Your task to perform on an android device: open app "Airtel Thanks" (install if not already installed) Image 0: 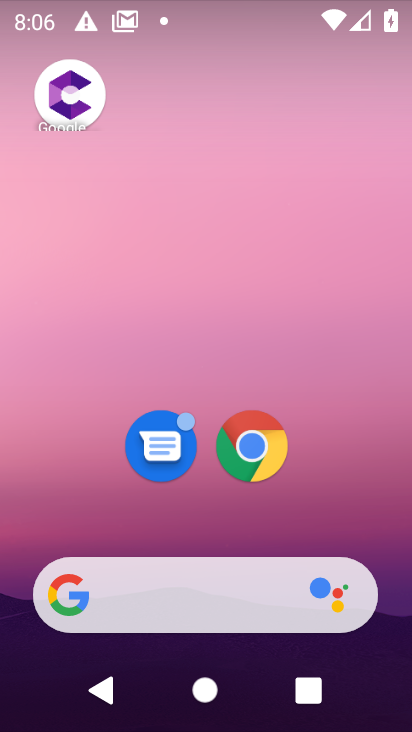
Step 0: drag from (241, 550) to (255, 147)
Your task to perform on an android device: open app "Airtel Thanks" (install if not already installed) Image 1: 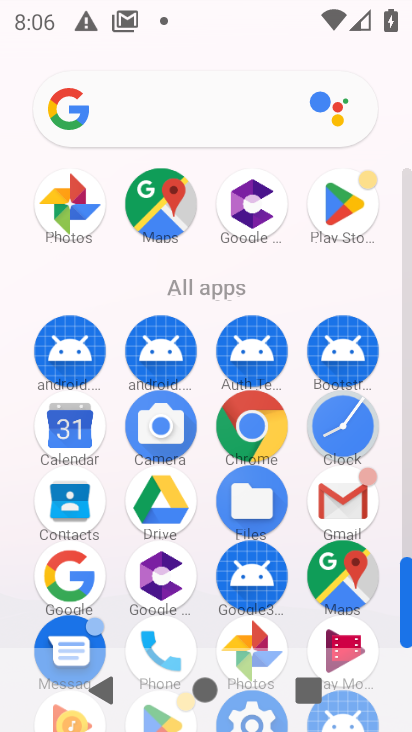
Step 1: drag from (297, 595) to (315, 205)
Your task to perform on an android device: open app "Airtel Thanks" (install if not already installed) Image 2: 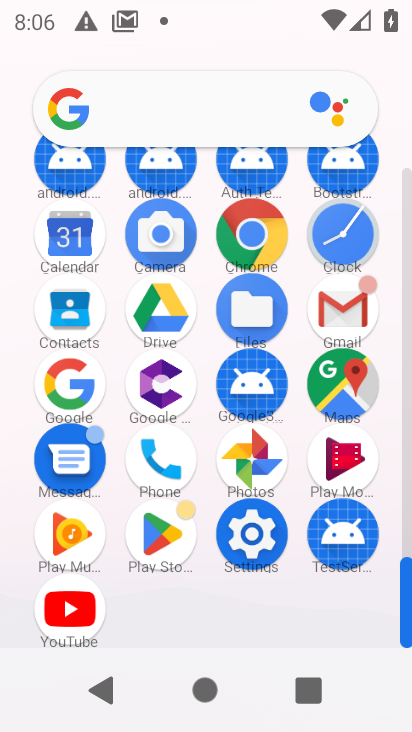
Step 2: click (165, 542)
Your task to perform on an android device: open app "Airtel Thanks" (install if not already installed) Image 3: 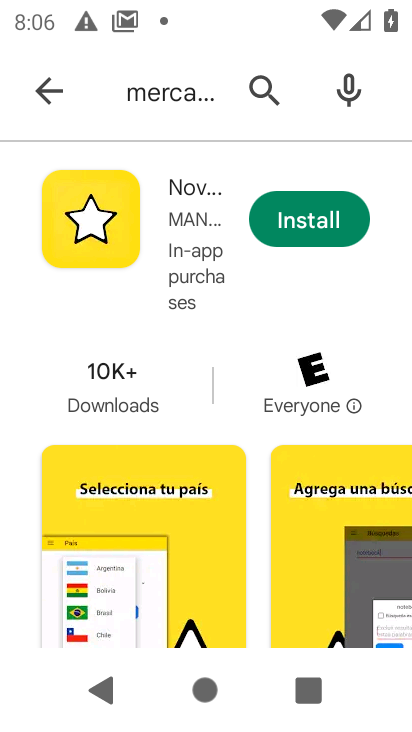
Step 3: click (270, 78)
Your task to perform on an android device: open app "Airtel Thanks" (install if not already installed) Image 4: 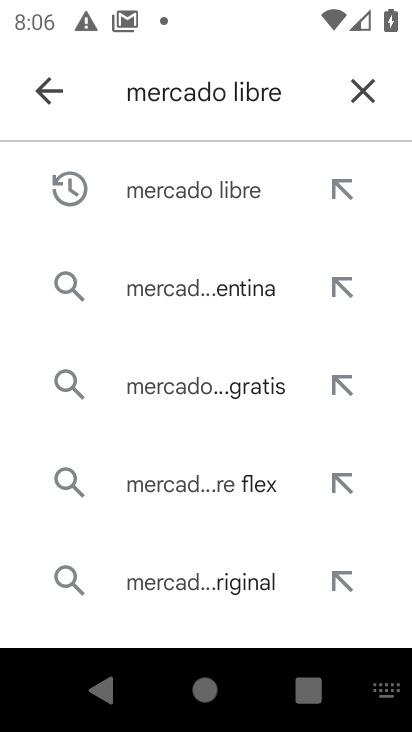
Step 4: click (364, 93)
Your task to perform on an android device: open app "Airtel Thanks" (install if not already installed) Image 5: 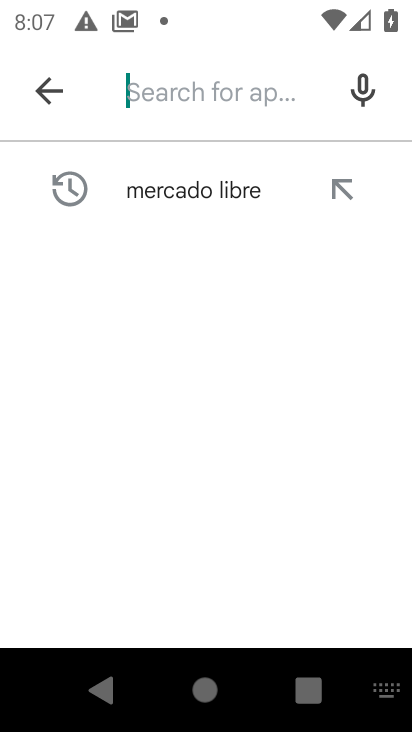
Step 5: type "Airtel Thanks"
Your task to perform on an android device: open app "Airtel Thanks" (install if not already installed) Image 6: 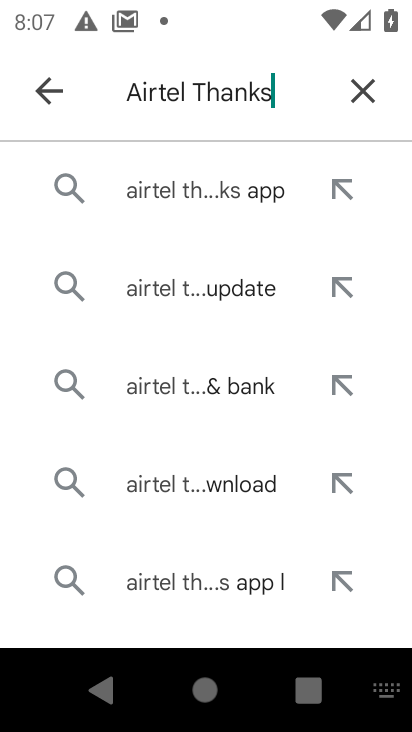
Step 6: click (236, 203)
Your task to perform on an android device: open app "Airtel Thanks" (install if not already installed) Image 7: 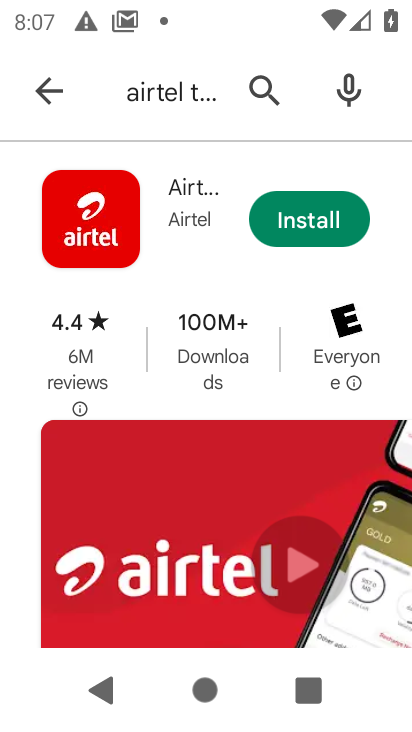
Step 7: click (311, 229)
Your task to perform on an android device: open app "Airtel Thanks" (install if not already installed) Image 8: 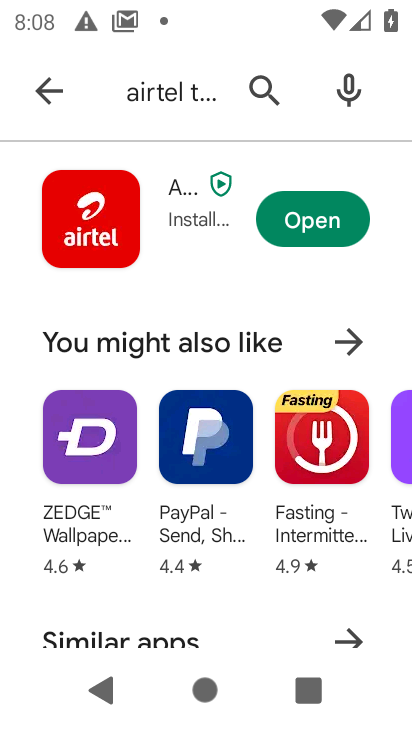
Step 8: click (331, 212)
Your task to perform on an android device: open app "Airtel Thanks" (install if not already installed) Image 9: 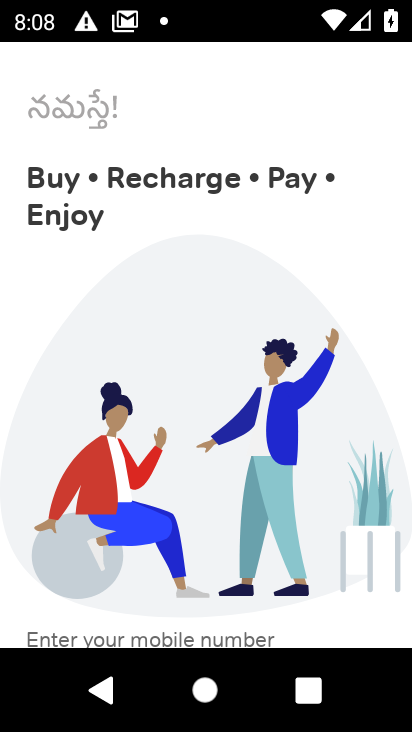
Step 9: task complete